Your task to perform on an android device: check android version Image 0: 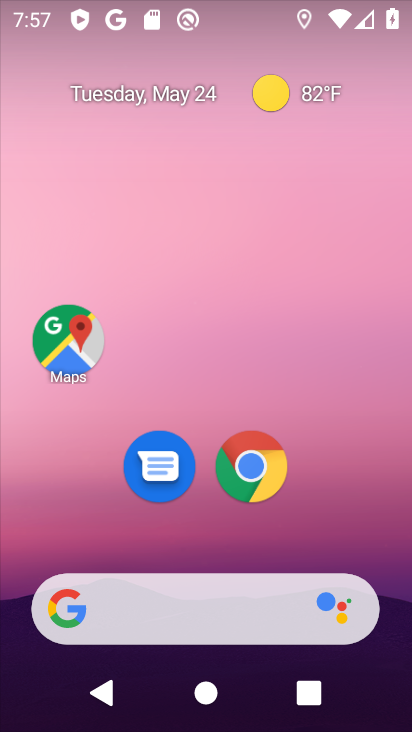
Step 0: drag from (260, 572) to (296, 234)
Your task to perform on an android device: check android version Image 1: 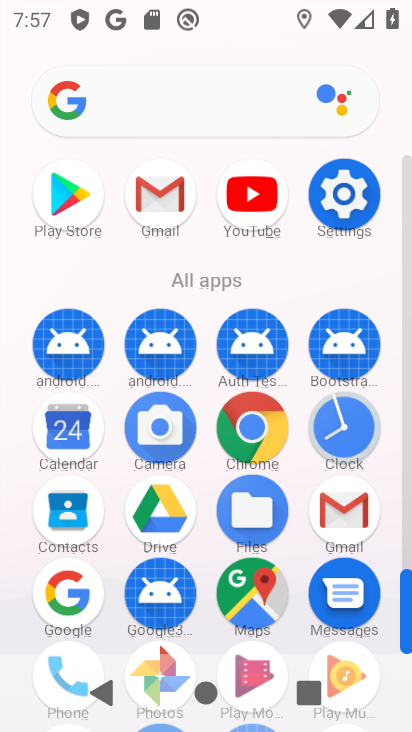
Step 1: click (349, 199)
Your task to perform on an android device: check android version Image 2: 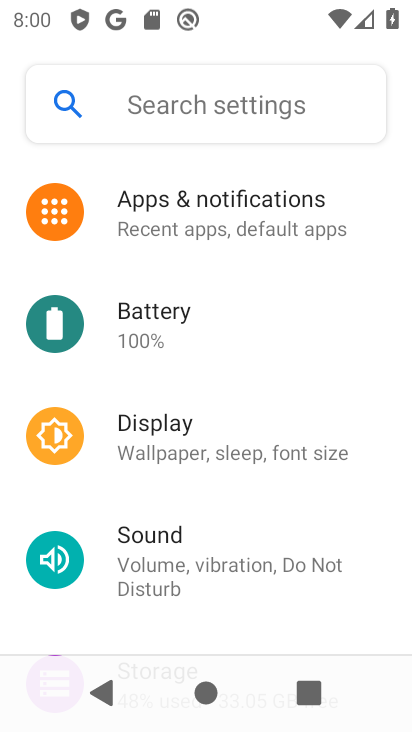
Step 2: task complete